Your task to perform on an android device: Open Android settings Image 0: 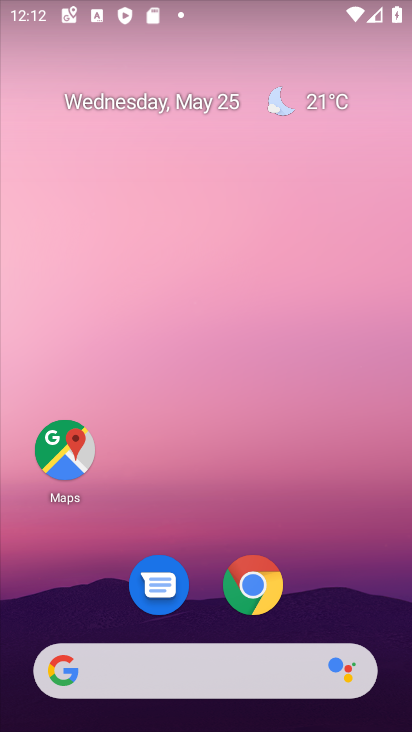
Step 0: drag from (257, 494) to (272, 2)
Your task to perform on an android device: Open Android settings Image 1: 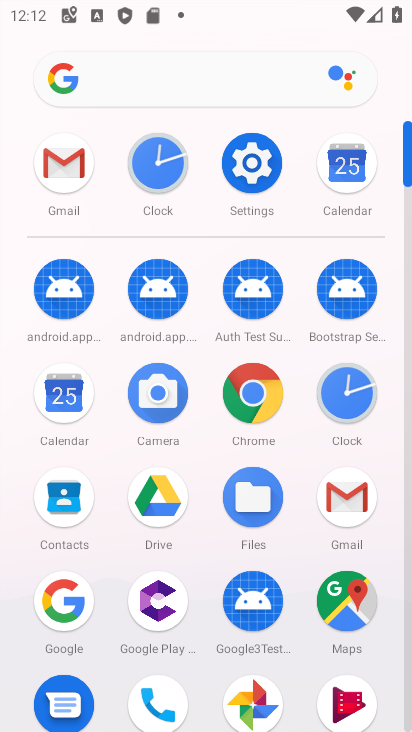
Step 1: click (259, 169)
Your task to perform on an android device: Open Android settings Image 2: 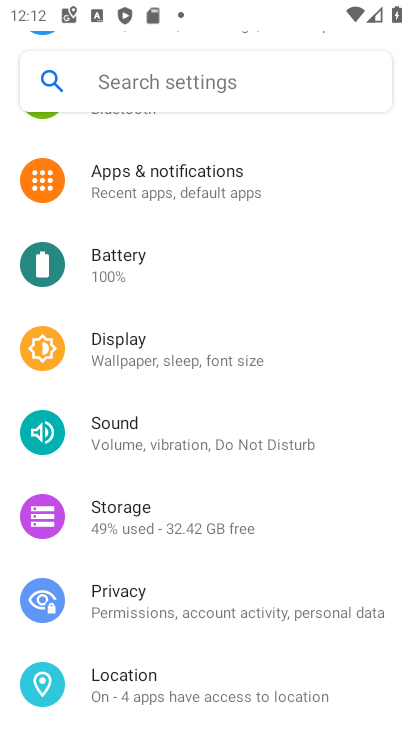
Step 2: drag from (231, 561) to (312, 18)
Your task to perform on an android device: Open Android settings Image 3: 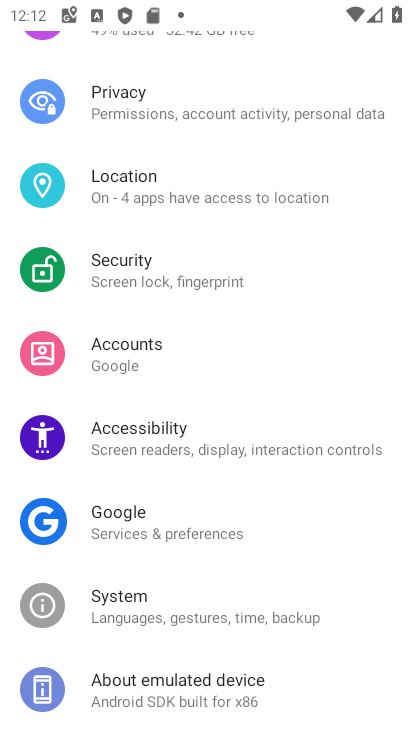
Step 3: click (203, 689)
Your task to perform on an android device: Open Android settings Image 4: 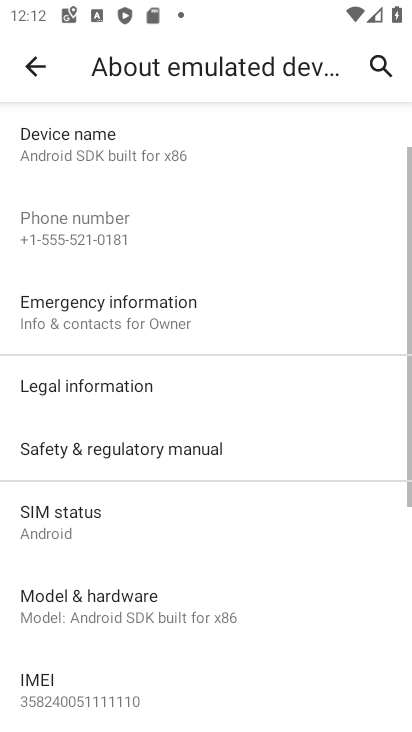
Step 4: task complete